Your task to perform on an android device: open device folders in google photos Image 0: 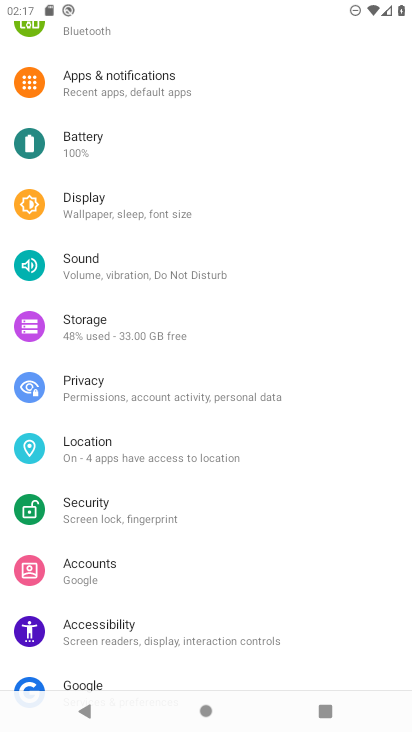
Step 0: press home button
Your task to perform on an android device: open device folders in google photos Image 1: 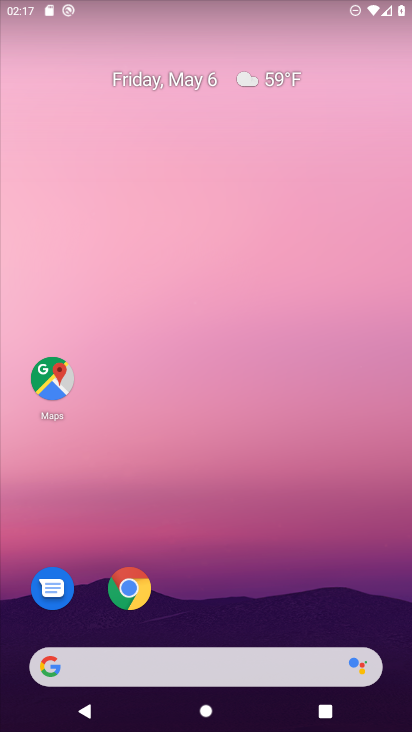
Step 1: drag from (100, 521) to (382, 313)
Your task to perform on an android device: open device folders in google photos Image 2: 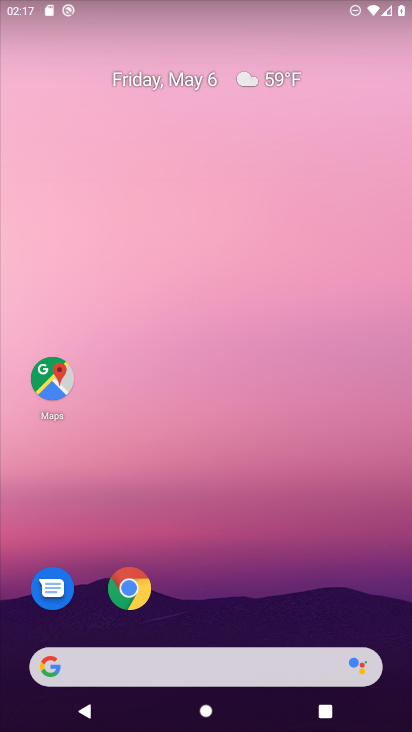
Step 2: drag from (167, 626) to (315, 0)
Your task to perform on an android device: open device folders in google photos Image 3: 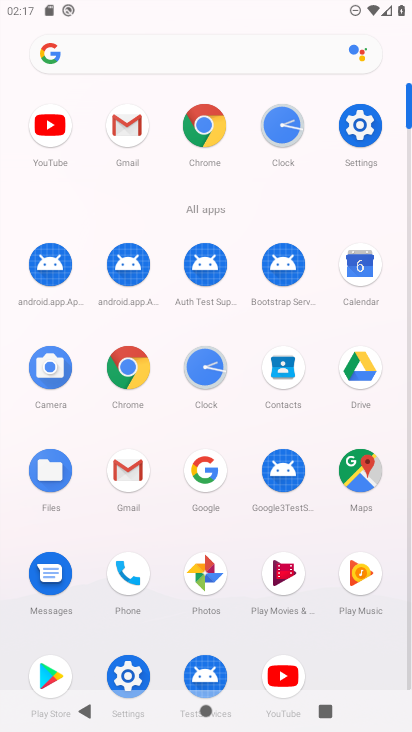
Step 3: click (201, 571)
Your task to perform on an android device: open device folders in google photos Image 4: 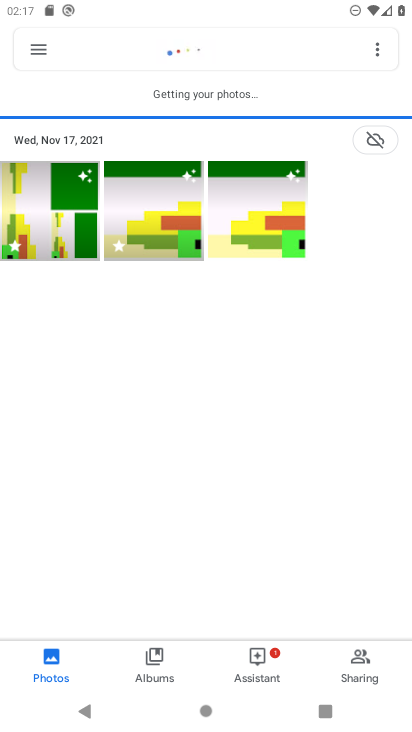
Step 4: click (35, 59)
Your task to perform on an android device: open device folders in google photos Image 5: 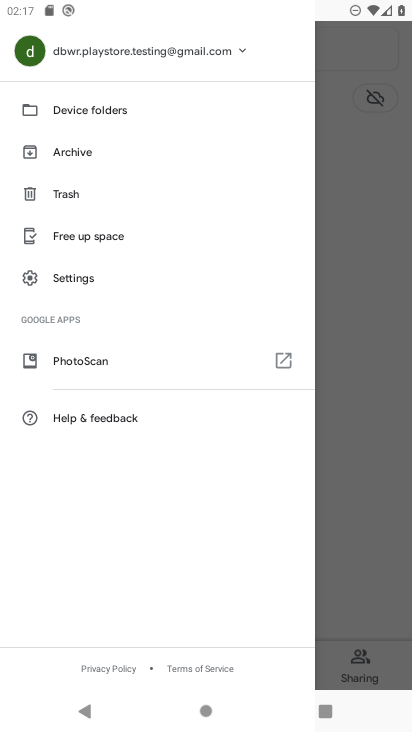
Step 5: click (163, 119)
Your task to perform on an android device: open device folders in google photos Image 6: 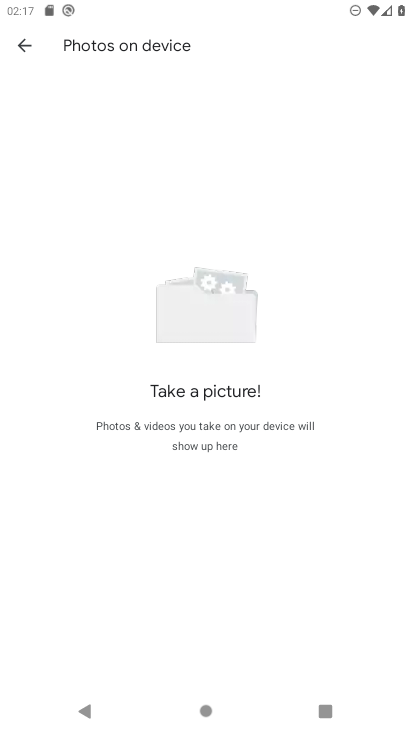
Step 6: task complete